Your task to perform on an android device: change keyboard looks Image 0: 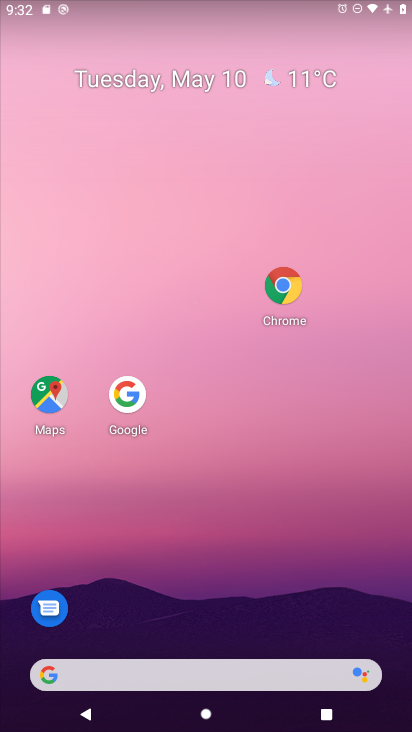
Step 0: drag from (209, 671) to (325, 165)
Your task to perform on an android device: change keyboard looks Image 1: 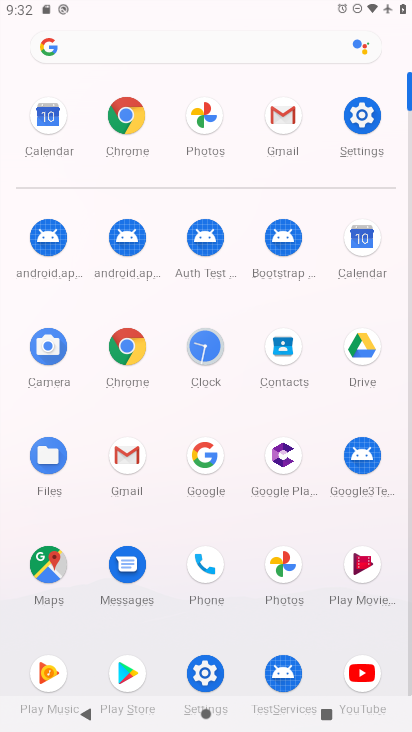
Step 1: click (371, 114)
Your task to perform on an android device: change keyboard looks Image 2: 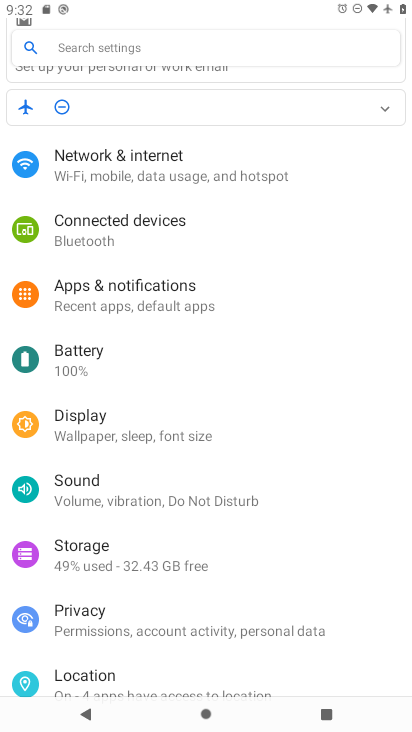
Step 2: drag from (205, 661) to (354, 179)
Your task to perform on an android device: change keyboard looks Image 3: 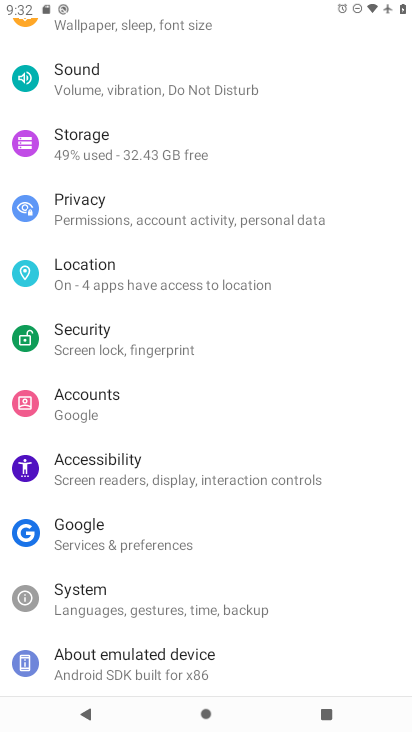
Step 3: click (128, 601)
Your task to perform on an android device: change keyboard looks Image 4: 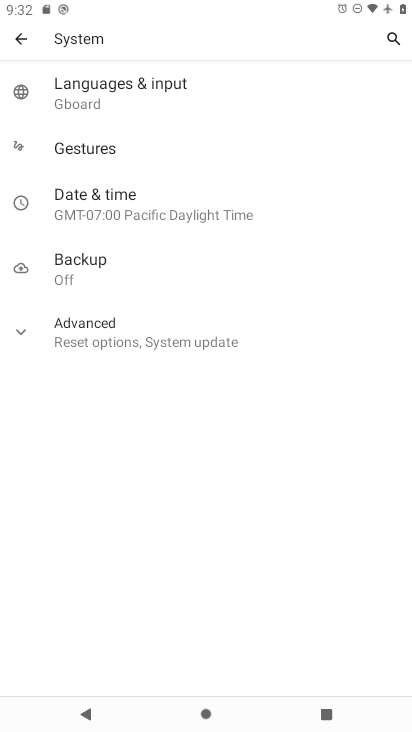
Step 4: click (98, 92)
Your task to perform on an android device: change keyboard looks Image 5: 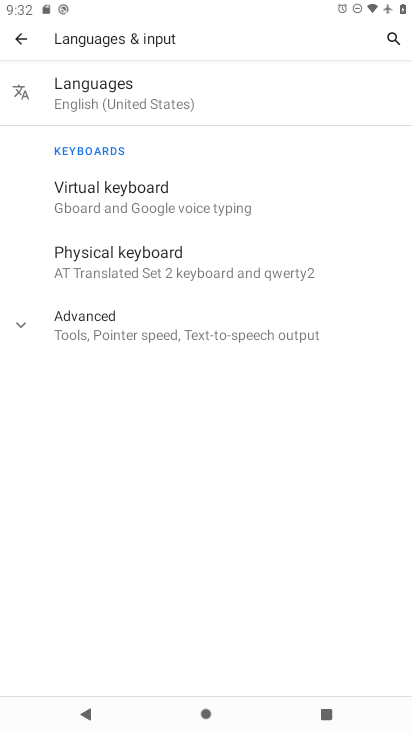
Step 5: click (101, 193)
Your task to perform on an android device: change keyboard looks Image 6: 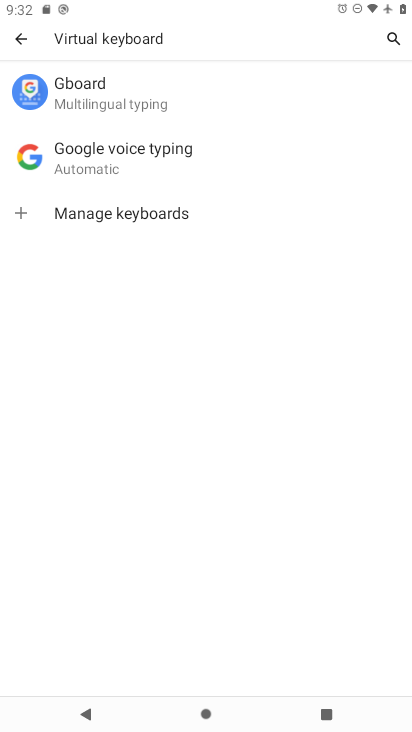
Step 6: click (113, 97)
Your task to perform on an android device: change keyboard looks Image 7: 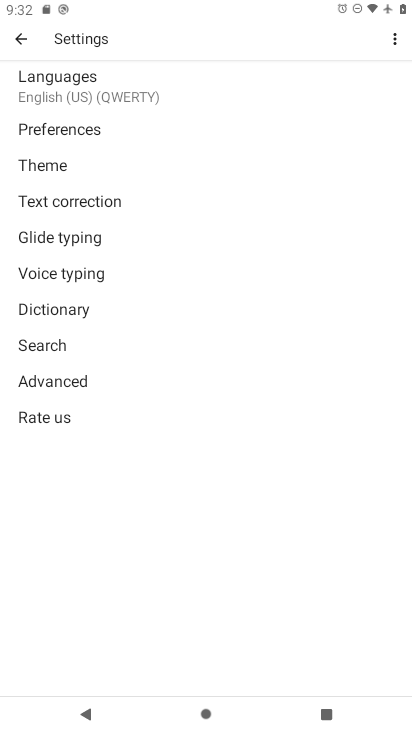
Step 7: click (55, 165)
Your task to perform on an android device: change keyboard looks Image 8: 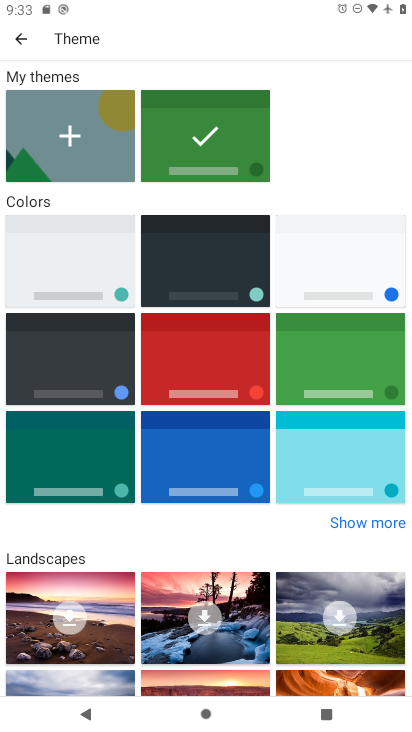
Step 8: click (313, 460)
Your task to perform on an android device: change keyboard looks Image 9: 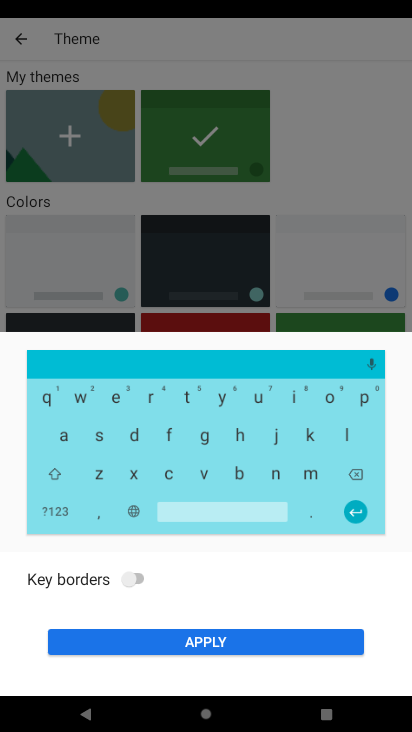
Step 9: click (202, 644)
Your task to perform on an android device: change keyboard looks Image 10: 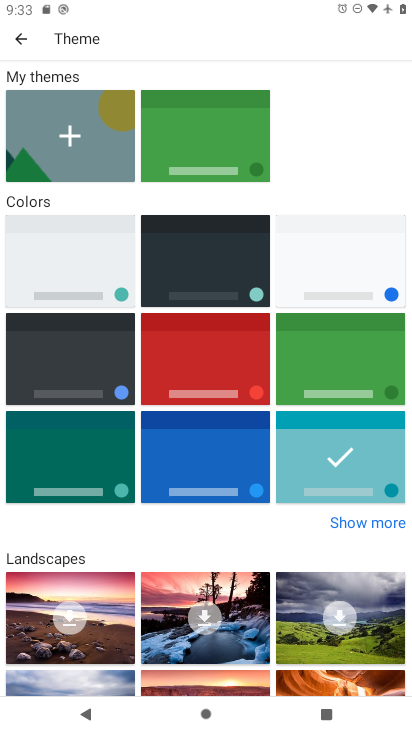
Step 10: task complete